Your task to perform on an android device: change the clock display to digital Image 0: 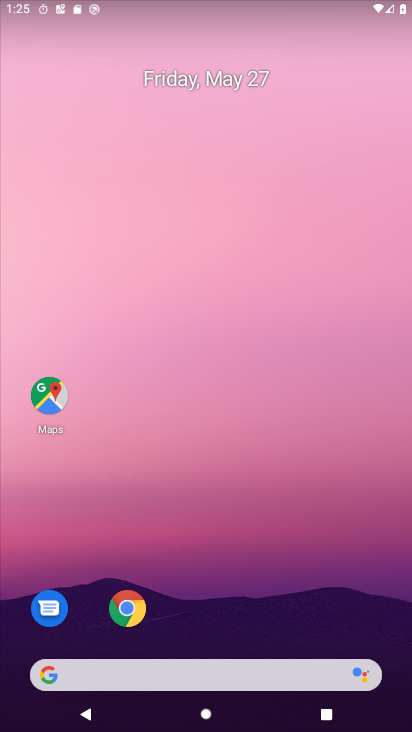
Step 0: drag from (411, 709) to (336, 54)
Your task to perform on an android device: change the clock display to digital Image 1: 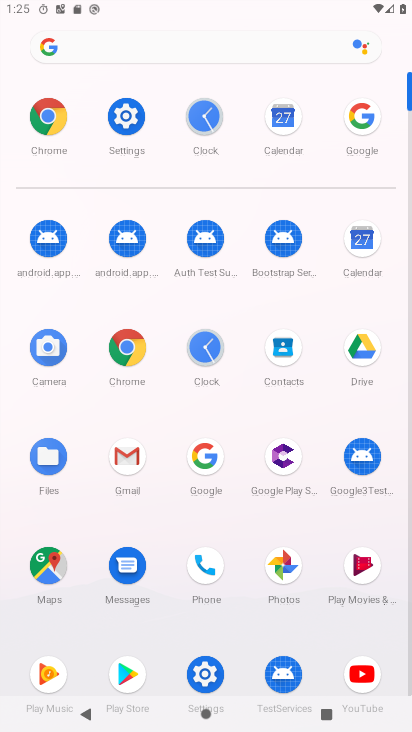
Step 1: click (121, 114)
Your task to perform on an android device: change the clock display to digital Image 2: 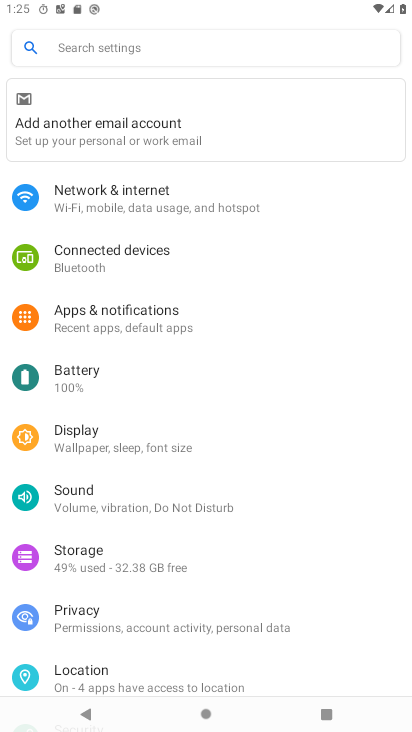
Step 2: press back button
Your task to perform on an android device: change the clock display to digital Image 3: 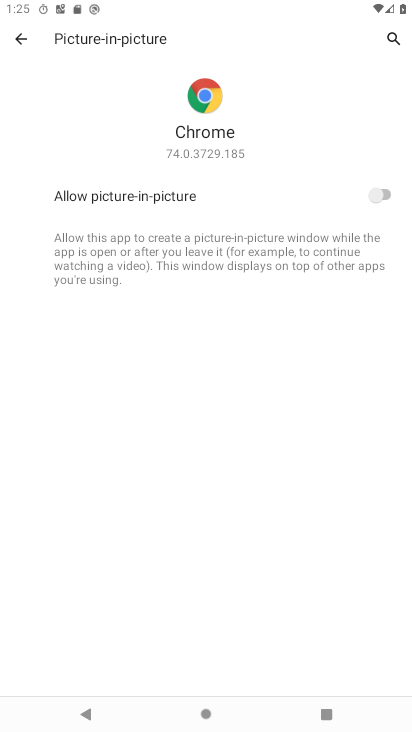
Step 3: press back button
Your task to perform on an android device: change the clock display to digital Image 4: 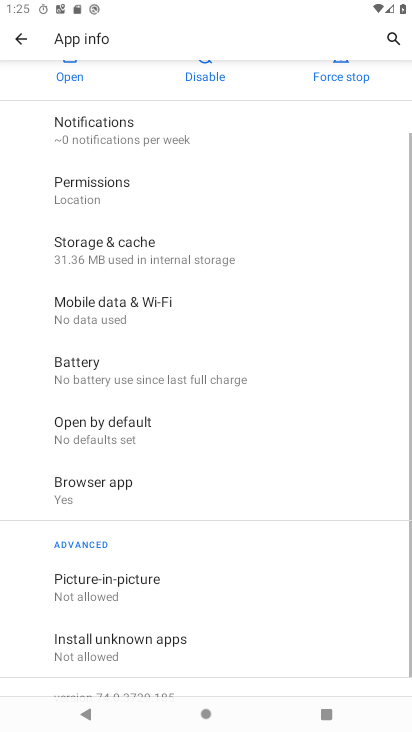
Step 4: press back button
Your task to perform on an android device: change the clock display to digital Image 5: 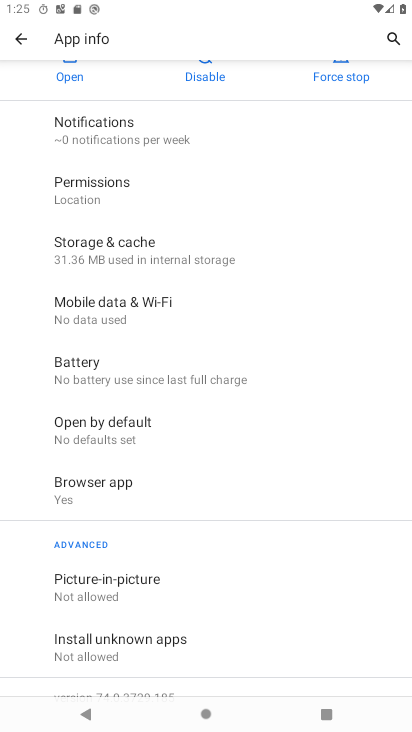
Step 5: press back button
Your task to perform on an android device: change the clock display to digital Image 6: 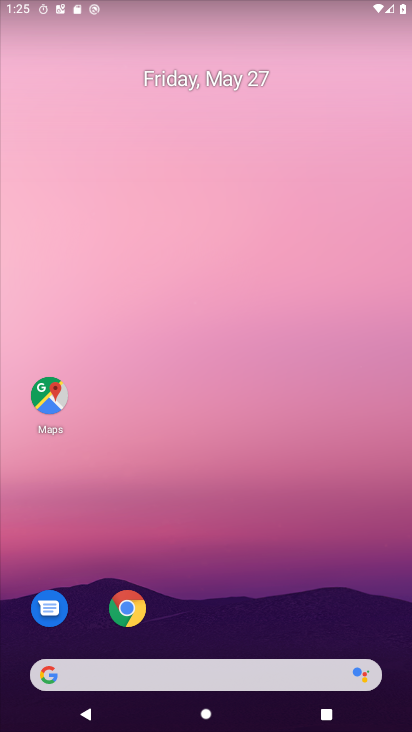
Step 6: drag from (401, 700) to (367, 96)
Your task to perform on an android device: change the clock display to digital Image 7: 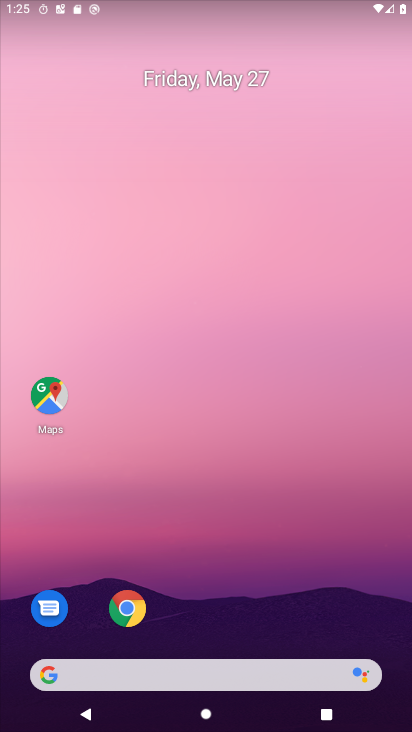
Step 7: drag from (400, 712) to (347, 32)
Your task to perform on an android device: change the clock display to digital Image 8: 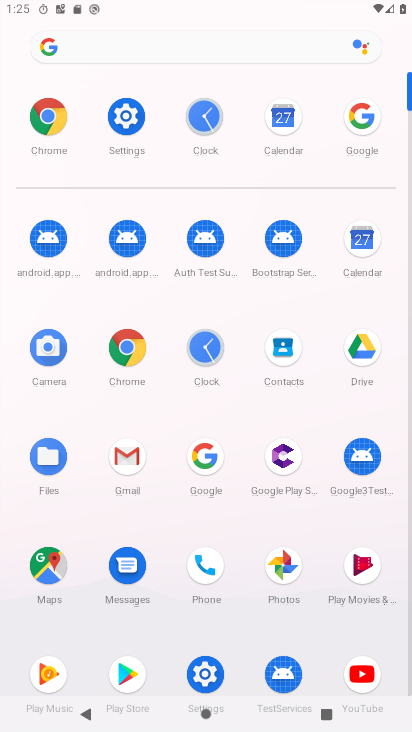
Step 8: click (198, 353)
Your task to perform on an android device: change the clock display to digital Image 9: 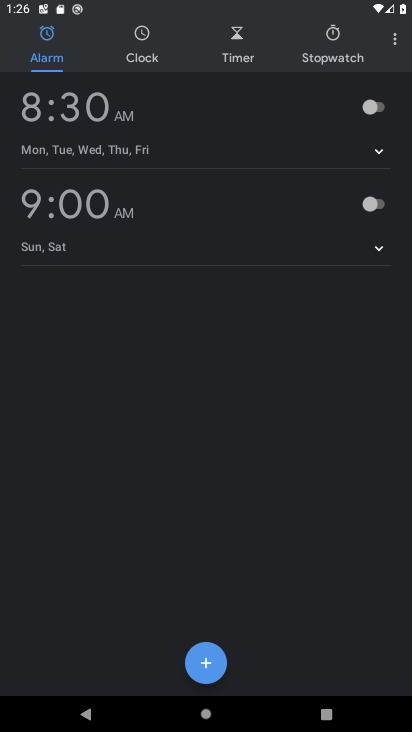
Step 9: click (396, 40)
Your task to perform on an android device: change the clock display to digital Image 10: 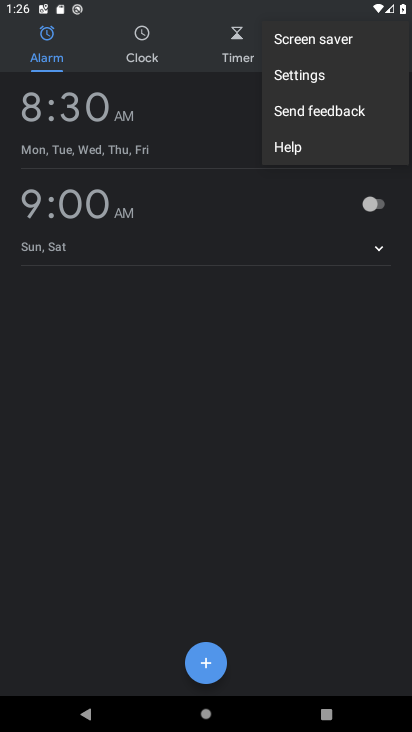
Step 10: click (311, 74)
Your task to perform on an android device: change the clock display to digital Image 11: 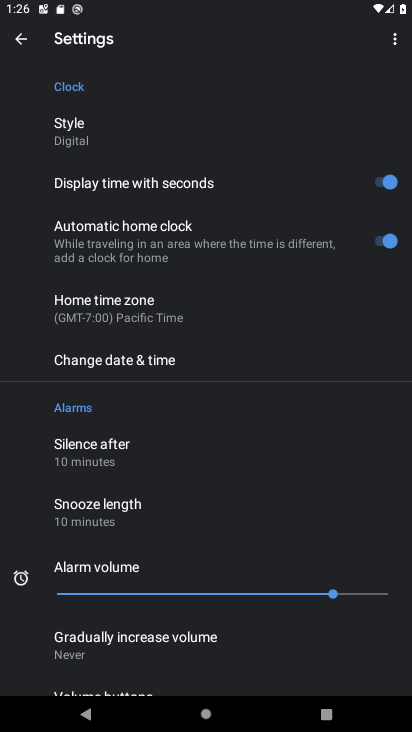
Step 11: click (79, 130)
Your task to perform on an android device: change the clock display to digital Image 12: 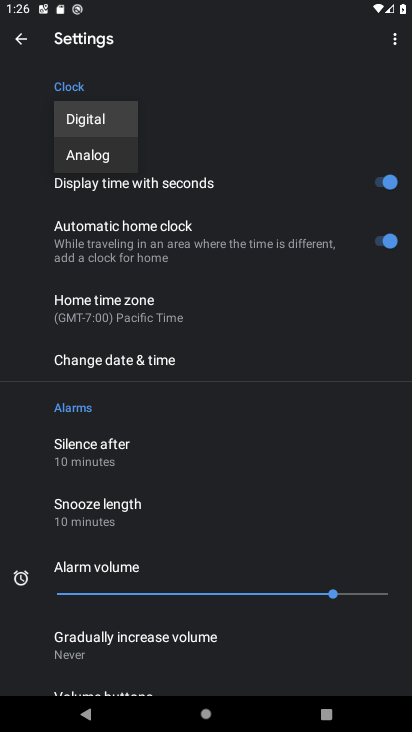
Step 12: click (81, 126)
Your task to perform on an android device: change the clock display to digital Image 13: 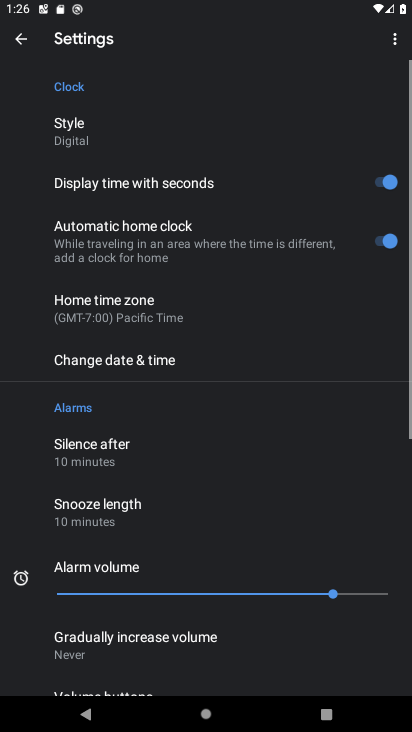
Step 13: task complete